Your task to perform on an android device: Add "asus rog" to the cart on amazon.com Image 0: 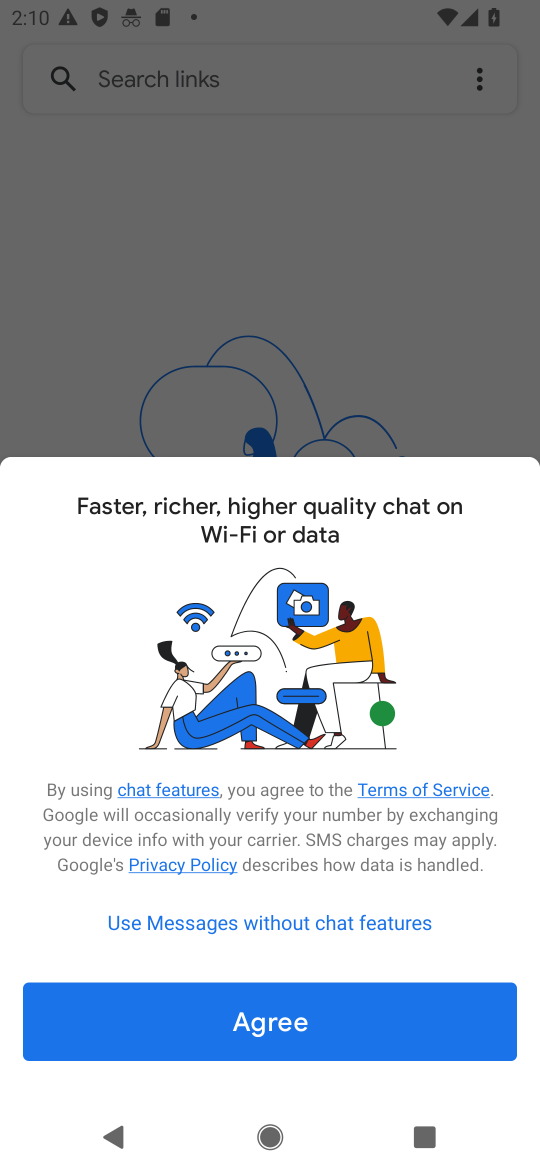
Step 0: press home button
Your task to perform on an android device: Add "asus rog" to the cart on amazon.com Image 1: 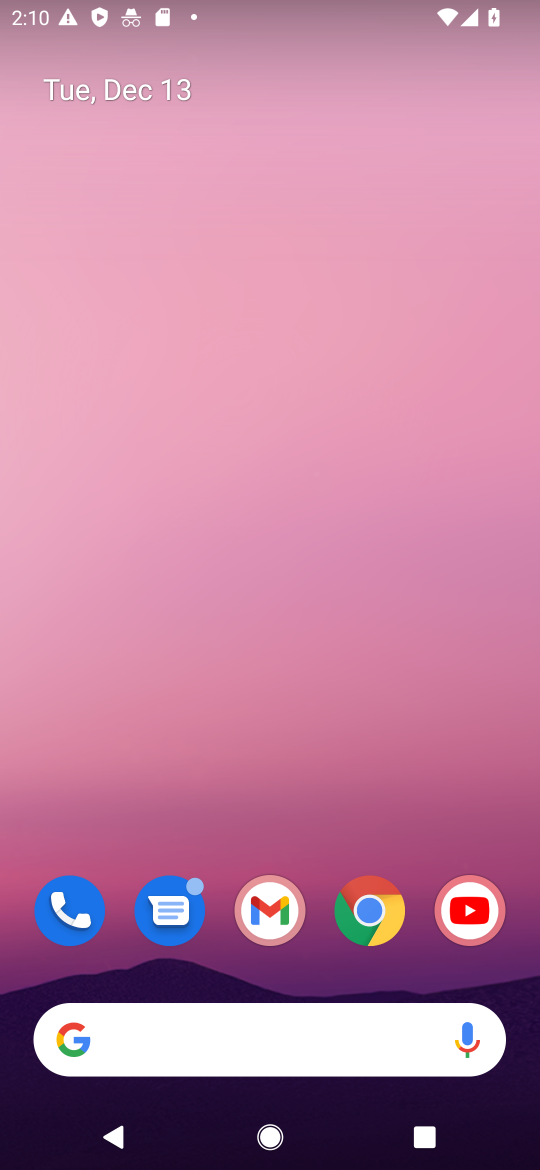
Step 1: click (360, 916)
Your task to perform on an android device: Add "asus rog" to the cart on amazon.com Image 2: 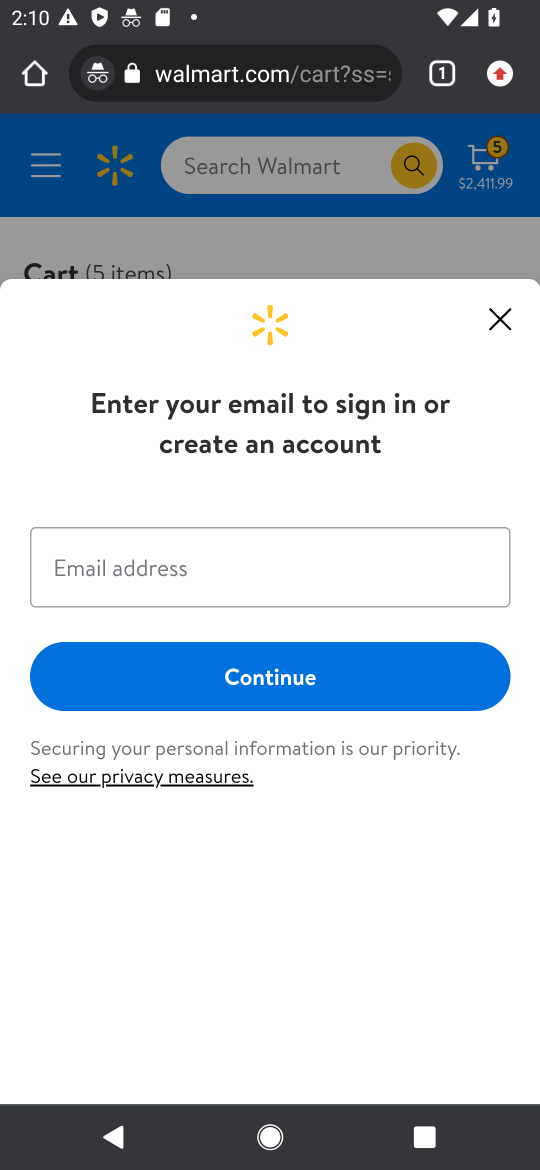
Step 2: click (219, 79)
Your task to perform on an android device: Add "asus rog" to the cart on amazon.com Image 3: 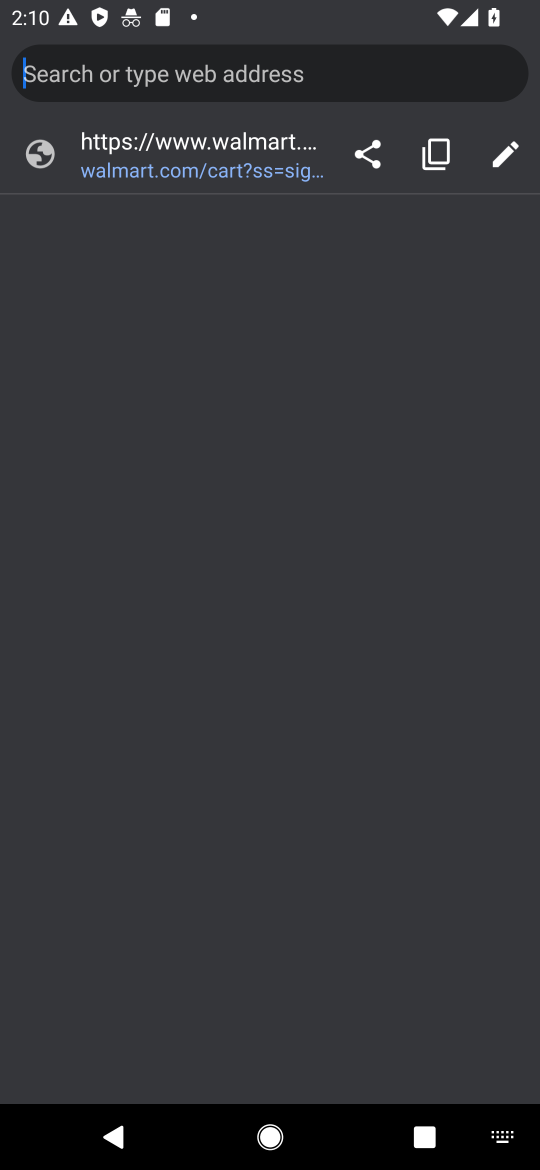
Step 3: type "AMAZON"
Your task to perform on an android device: Add "asus rog" to the cart on amazon.com Image 4: 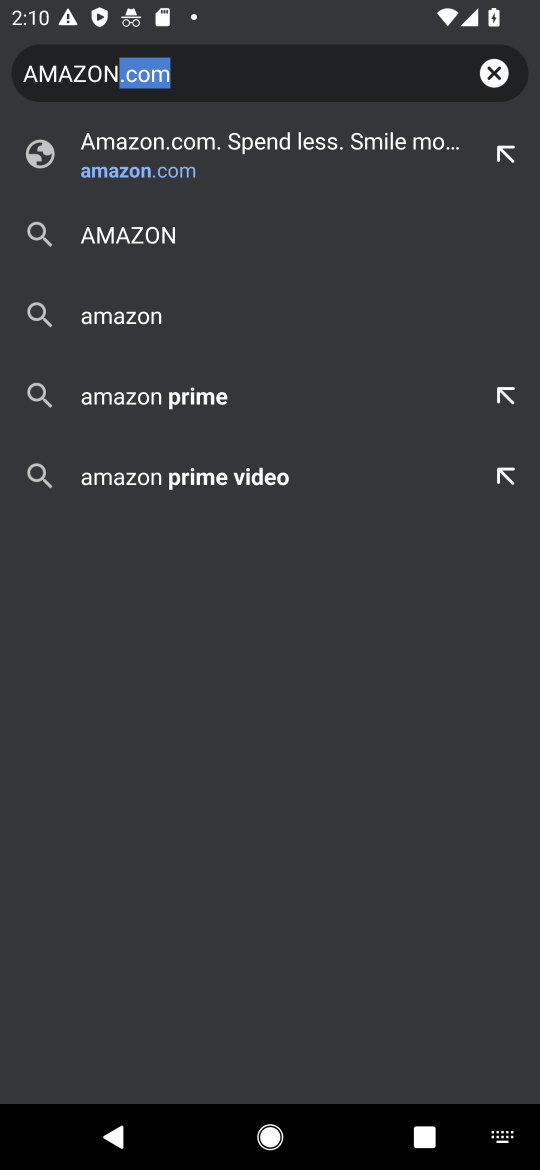
Step 4: click (286, 168)
Your task to perform on an android device: Add "asus rog" to the cart on amazon.com Image 5: 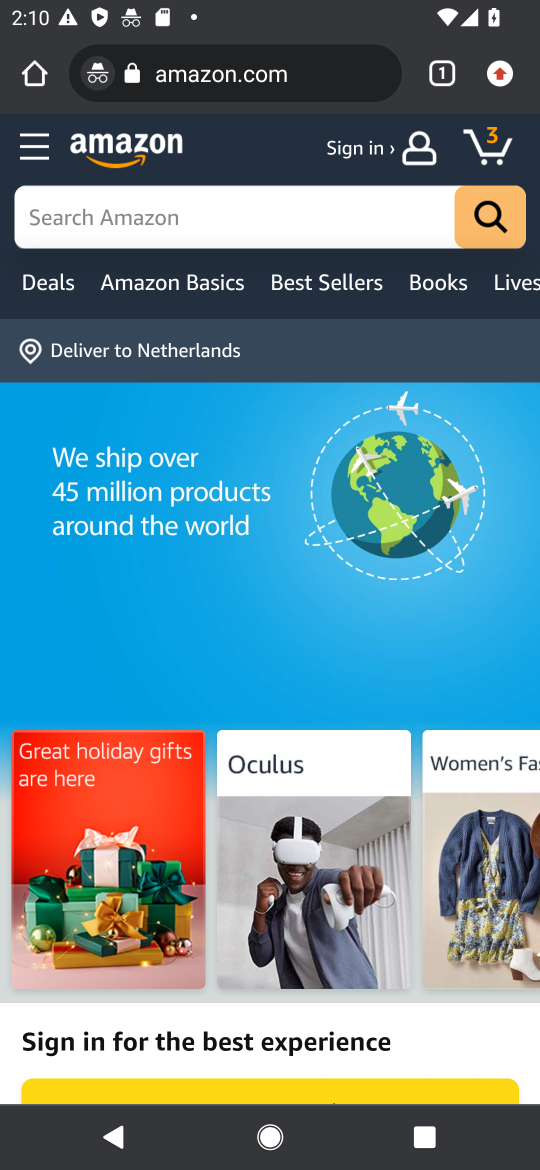
Step 5: click (223, 217)
Your task to perform on an android device: Add "asus rog" to the cart on amazon.com Image 6: 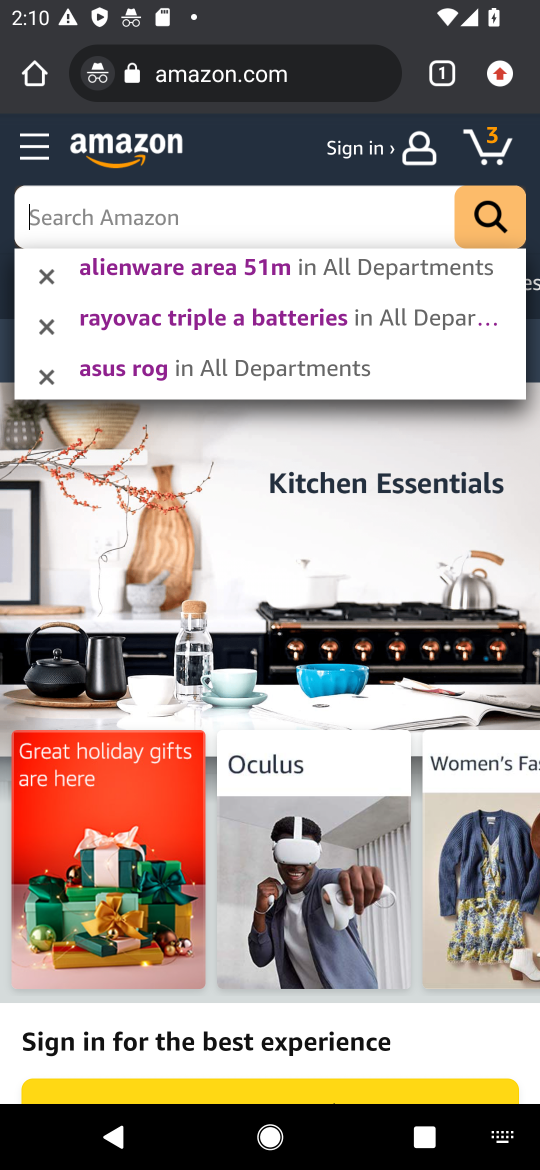
Step 6: type ""asus rog"
Your task to perform on an android device: Add "asus rog" to the cart on amazon.com Image 7: 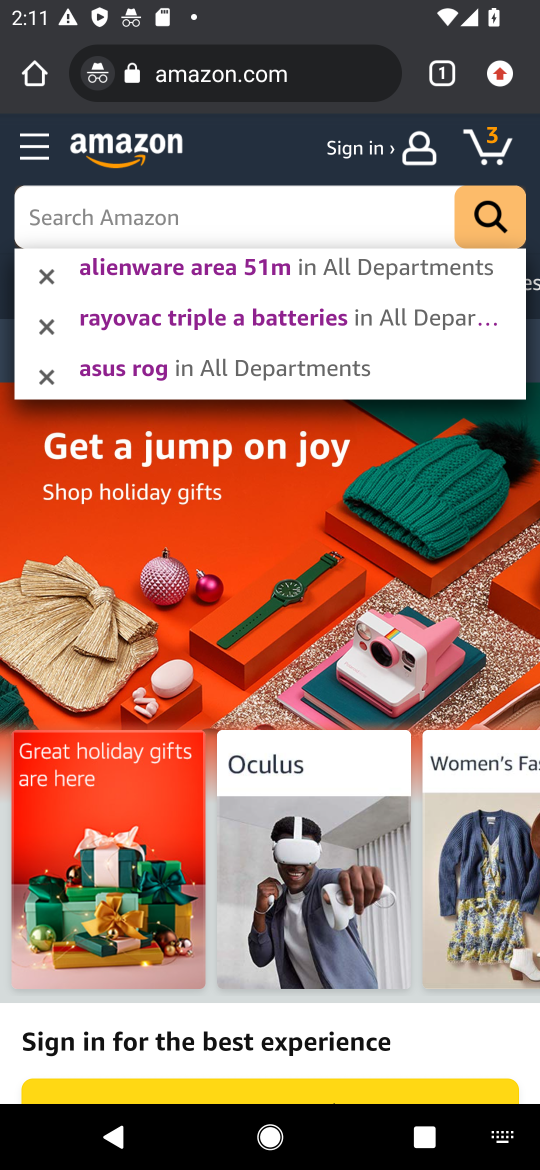
Step 7: type ""asus rog"
Your task to perform on an android device: Add "asus rog" to the cart on amazon.com Image 8: 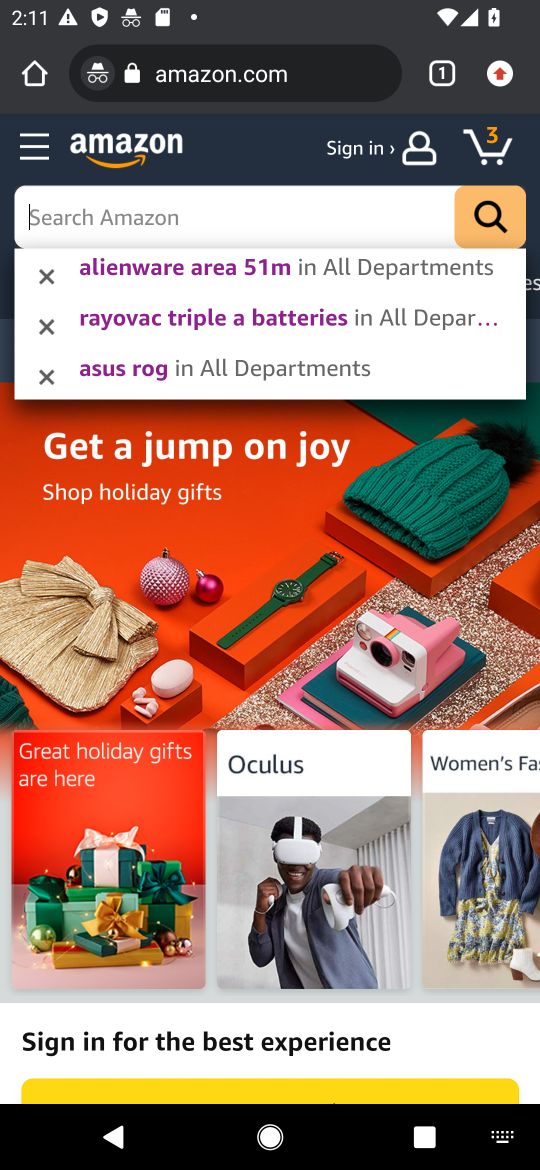
Step 8: click (281, 226)
Your task to perform on an android device: Add "asus rog" to the cart on amazon.com Image 9: 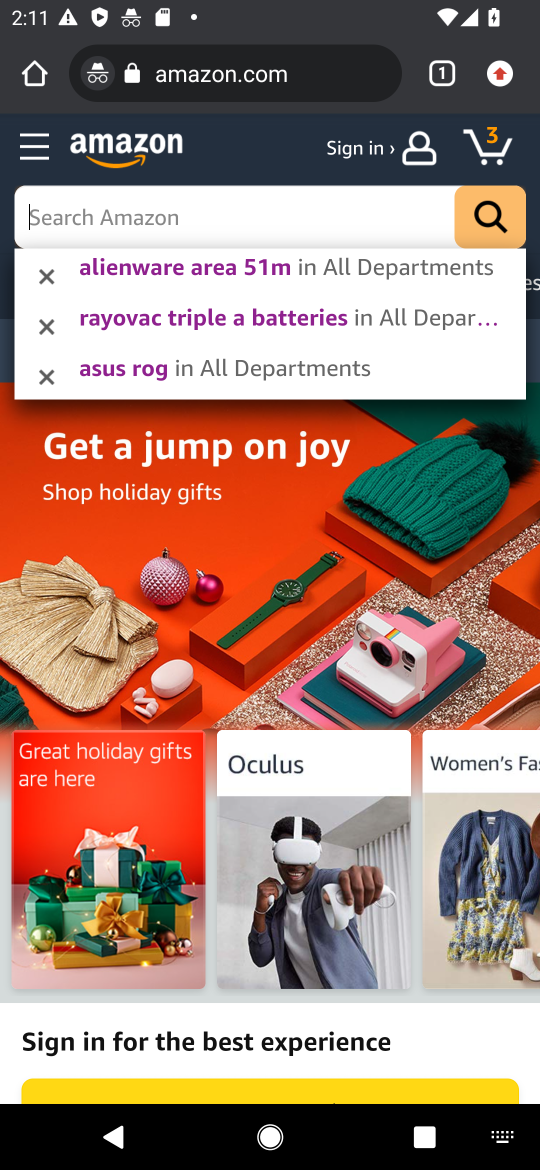
Step 9: type ""asus rog"
Your task to perform on an android device: Add "asus rog" to the cart on amazon.com Image 10: 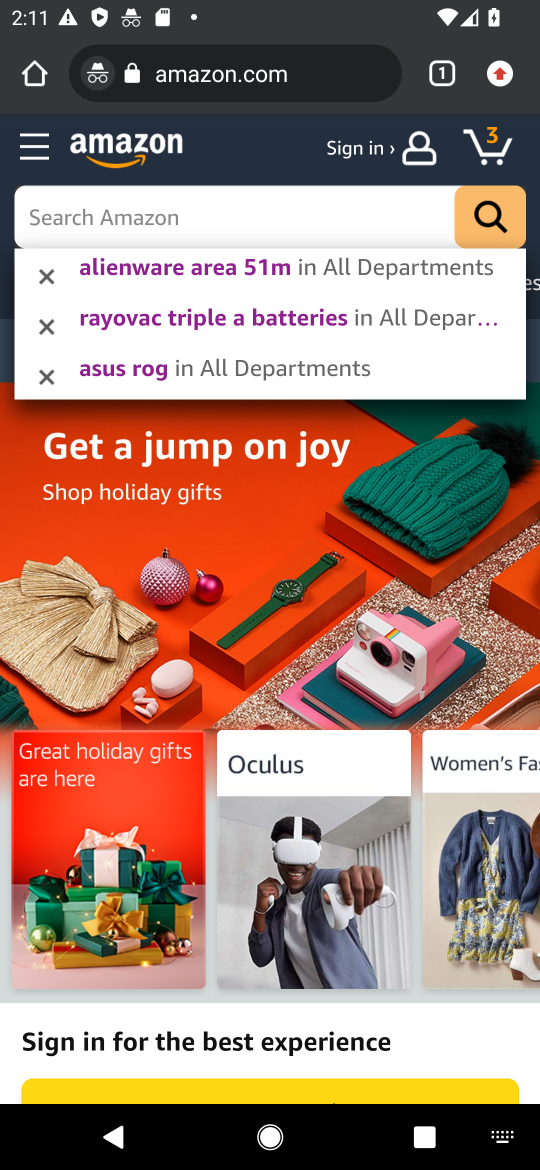
Step 10: type "asus rog"
Your task to perform on an android device: Add "asus rog" to the cart on amazon.com Image 11: 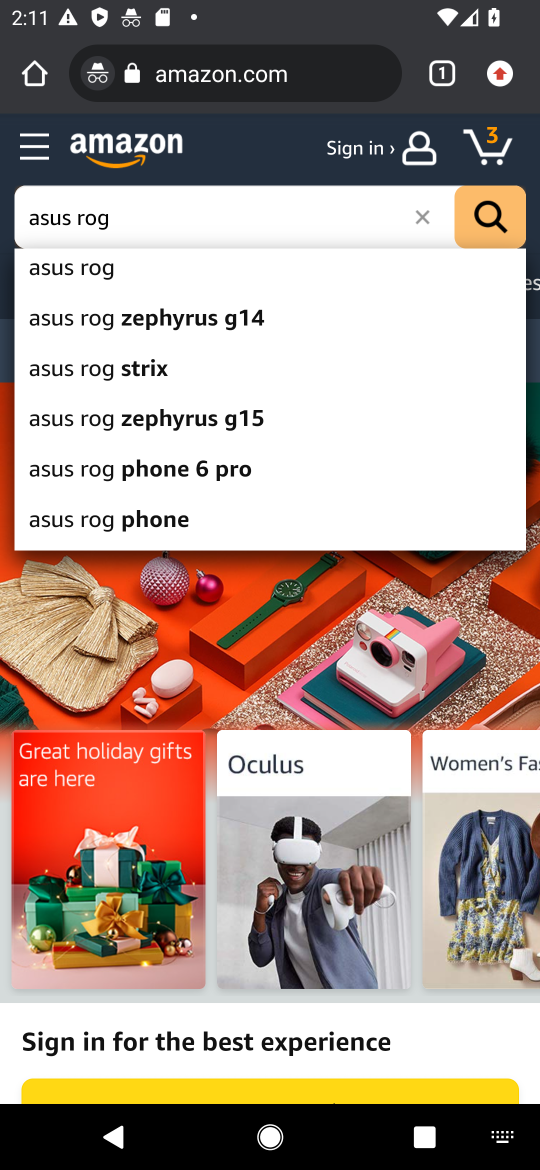
Step 11: click (96, 267)
Your task to perform on an android device: Add "asus rog" to the cart on amazon.com Image 12: 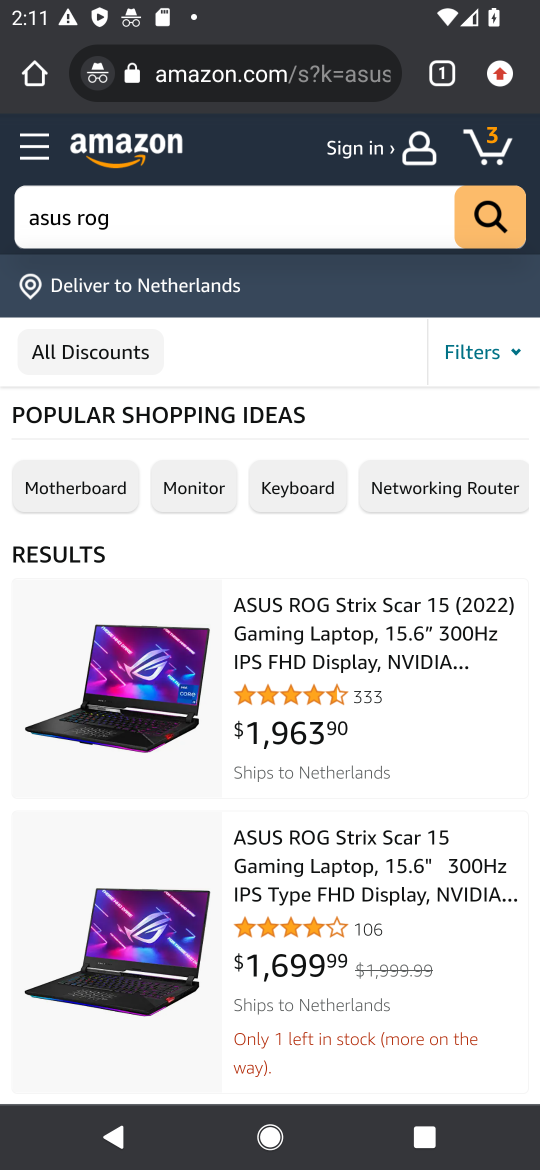
Step 12: click (343, 634)
Your task to perform on an android device: Add "asus rog" to the cart on amazon.com Image 13: 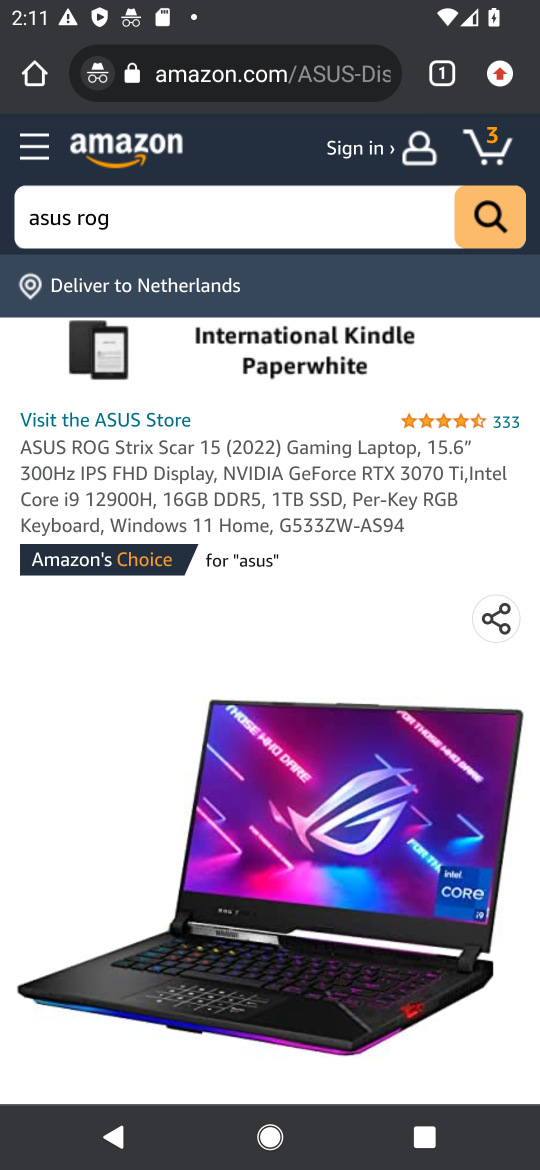
Step 13: drag from (369, 885) to (384, 260)
Your task to perform on an android device: Add "asus rog" to the cart on amazon.com Image 14: 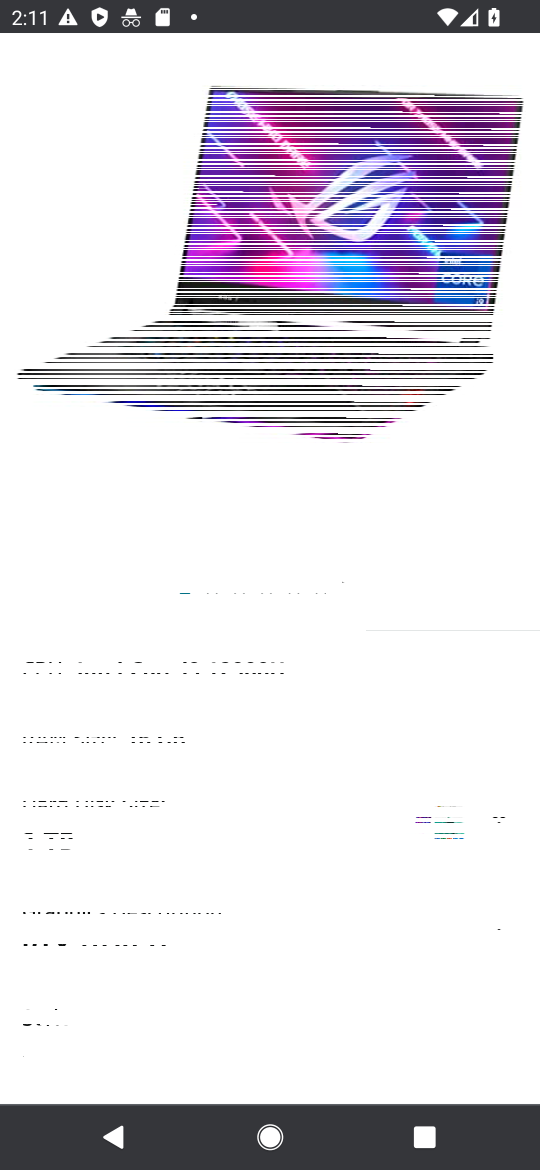
Step 14: drag from (297, 922) to (306, 319)
Your task to perform on an android device: Add "asus rog" to the cart on amazon.com Image 15: 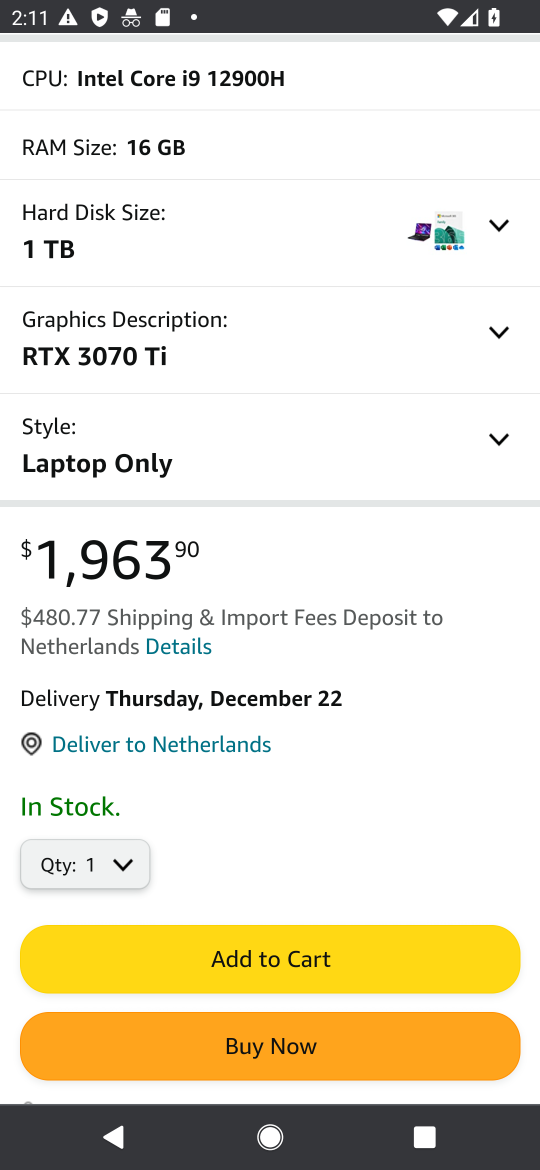
Step 15: click (239, 965)
Your task to perform on an android device: Add "asus rog" to the cart on amazon.com Image 16: 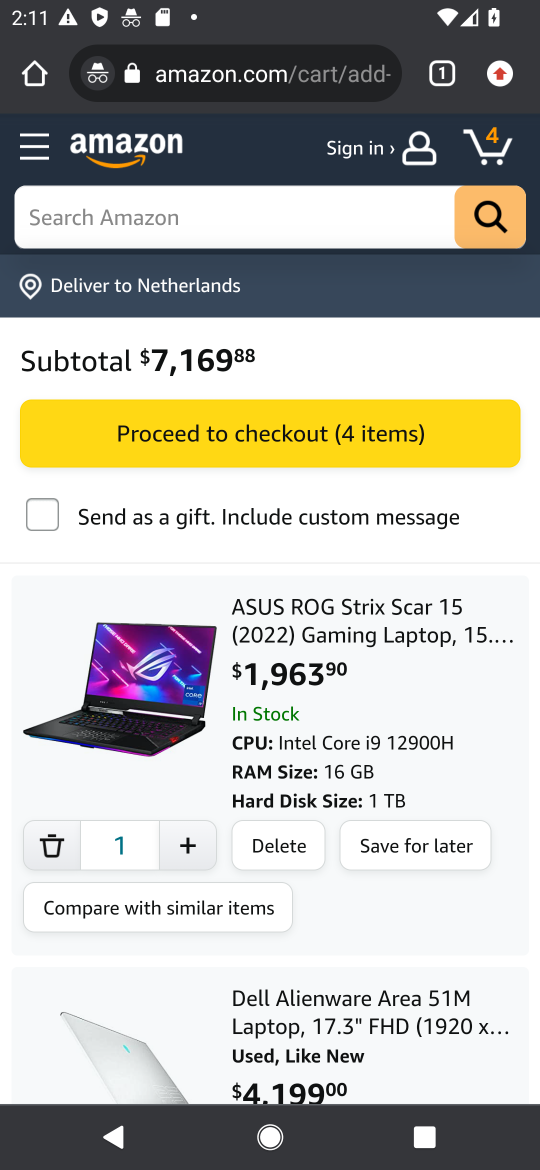
Step 16: click (239, 452)
Your task to perform on an android device: Add "asus rog" to the cart on amazon.com Image 17: 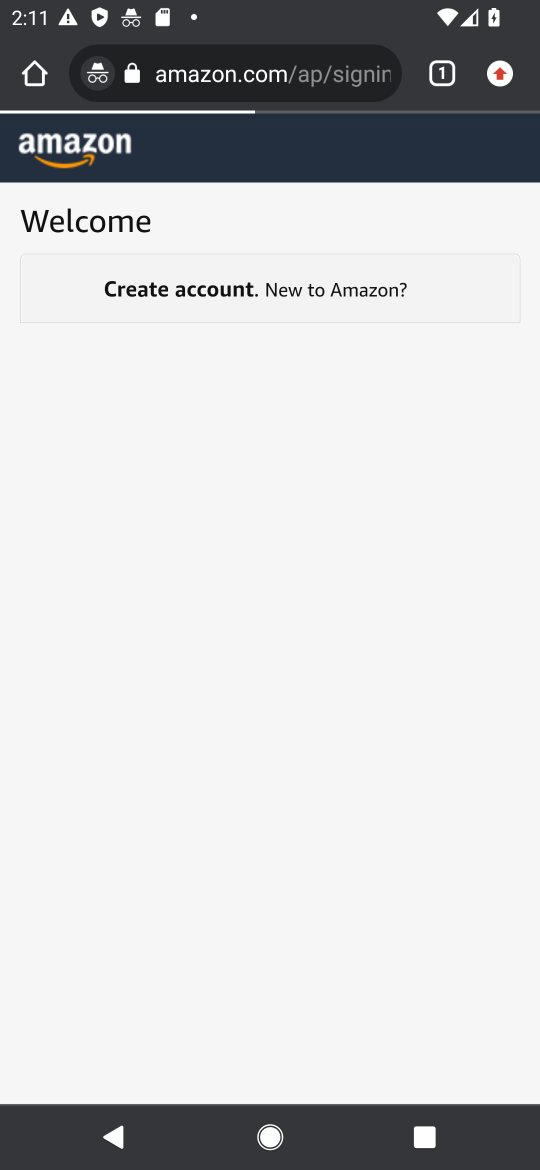
Step 17: task complete